Your task to perform on an android device: add a contact Image 0: 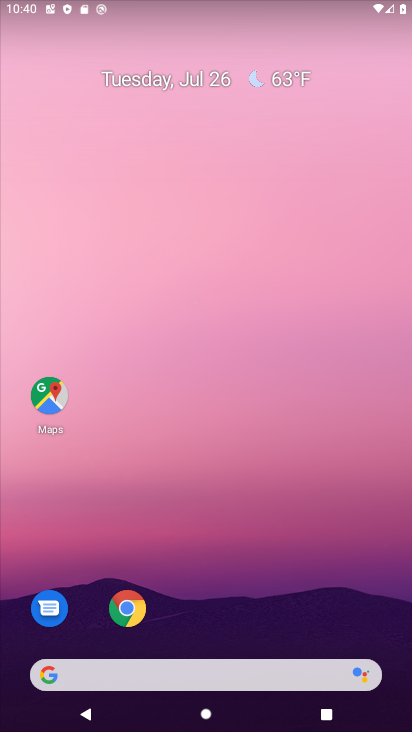
Step 0: drag from (235, 646) to (171, 112)
Your task to perform on an android device: add a contact Image 1: 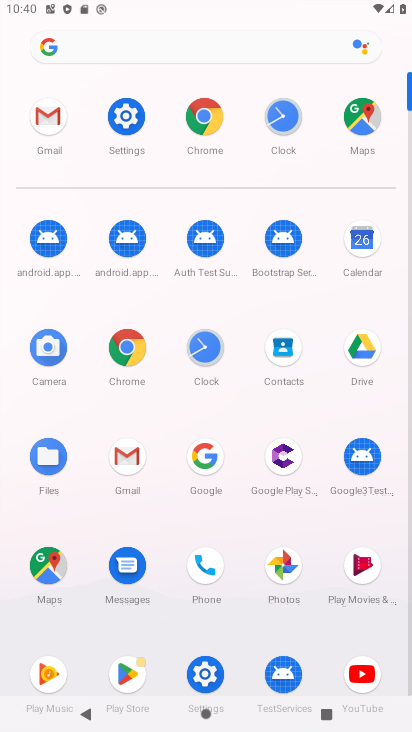
Step 1: click (279, 350)
Your task to perform on an android device: add a contact Image 2: 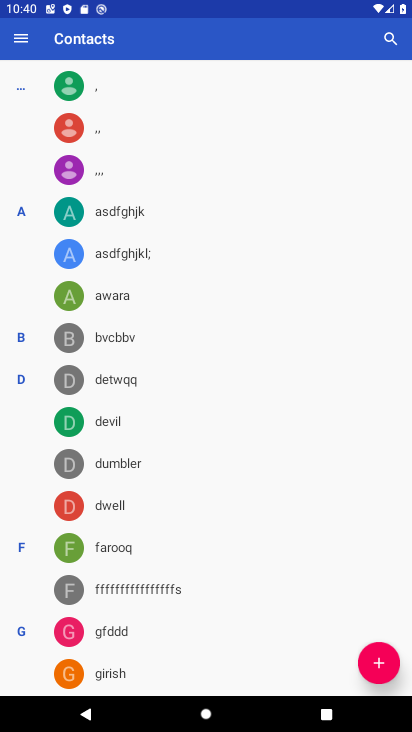
Step 2: click (372, 662)
Your task to perform on an android device: add a contact Image 3: 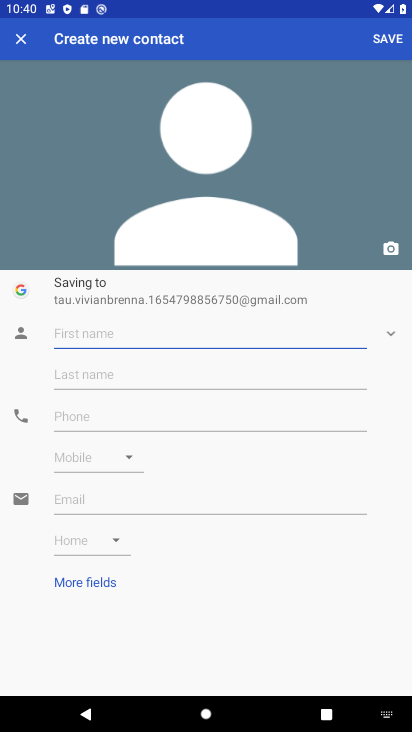
Step 3: type "gjjhjjbj"
Your task to perform on an android device: add a contact Image 4: 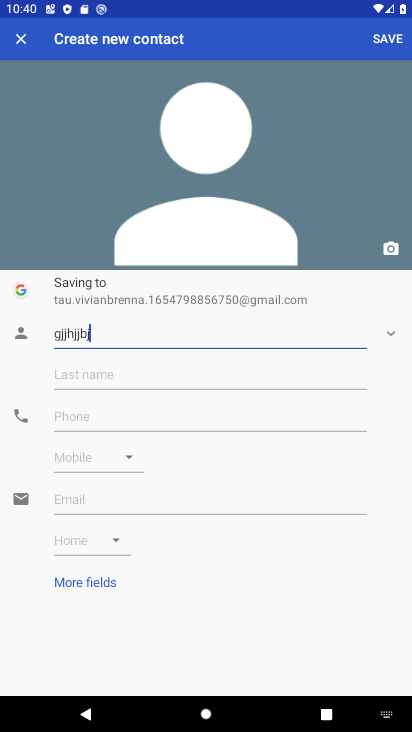
Step 4: click (123, 412)
Your task to perform on an android device: add a contact Image 5: 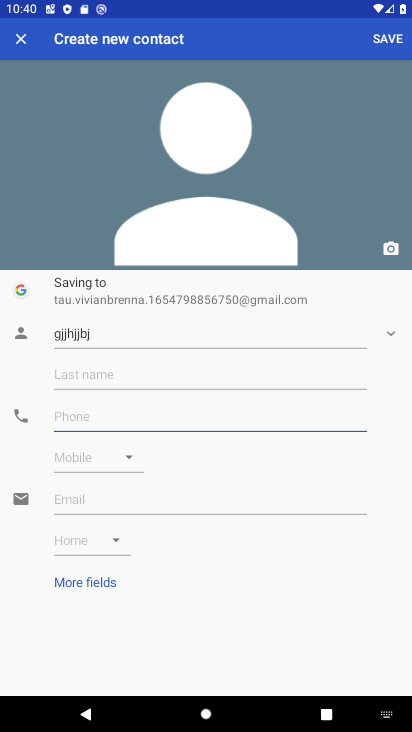
Step 5: type "8787878"
Your task to perform on an android device: add a contact Image 6: 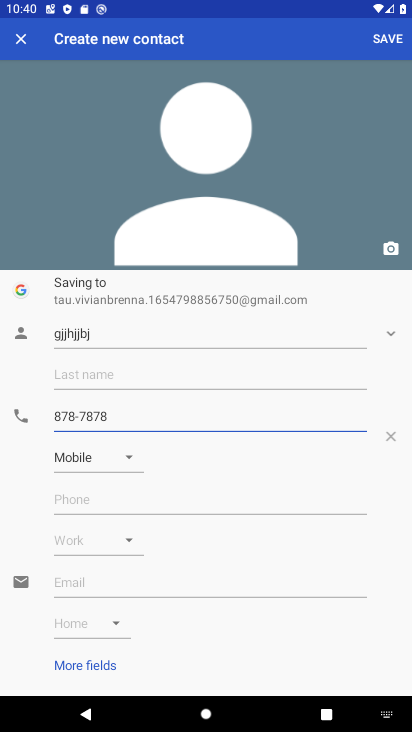
Step 6: click (383, 41)
Your task to perform on an android device: add a contact Image 7: 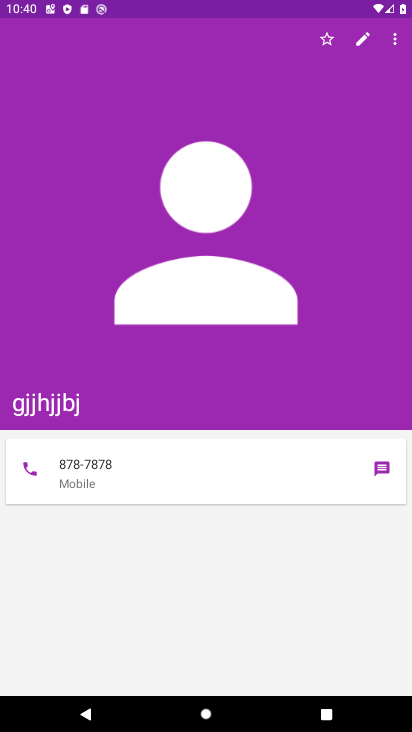
Step 7: task complete